Your task to perform on an android device: Go to settings Image 0: 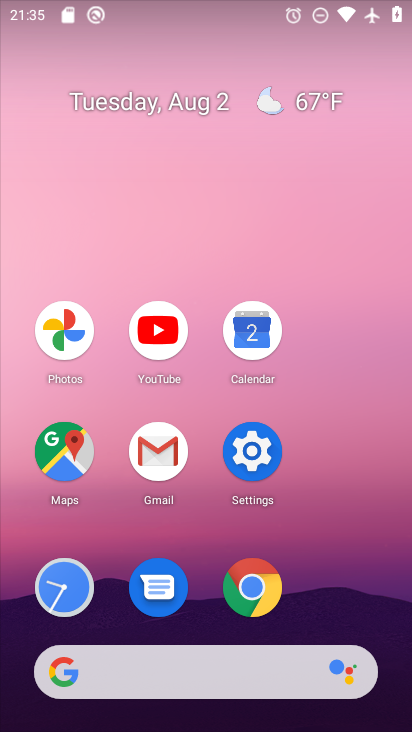
Step 0: click (255, 449)
Your task to perform on an android device: Go to settings Image 1: 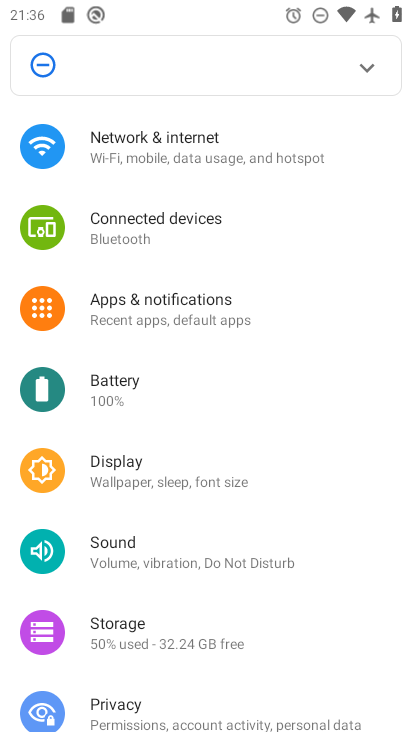
Step 1: task complete